Your task to perform on an android device: see creations saved in the google photos Image 0: 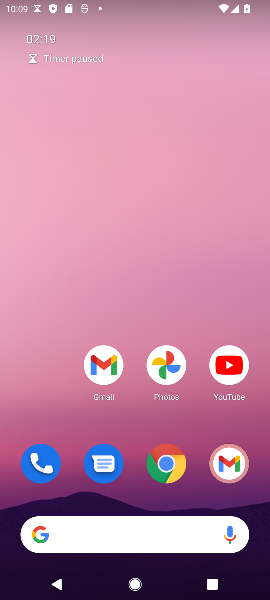
Step 0: click (160, 379)
Your task to perform on an android device: see creations saved in the google photos Image 1: 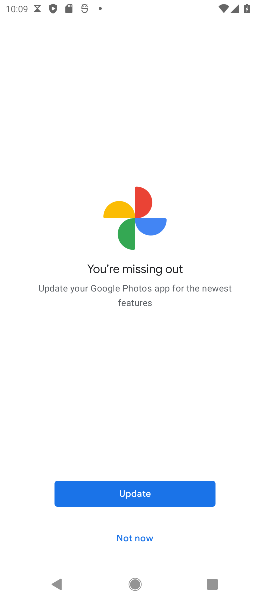
Step 1: click (134, 535)
Your task to perform on an android device: see creations saved in the google photos Image 2: 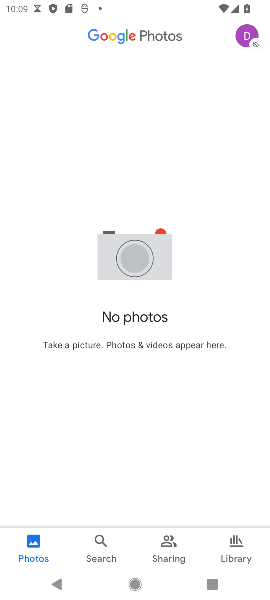
Step 2: click (238, 549)
Your task to perform on an android device: see creations saved in the google photos Image 3: 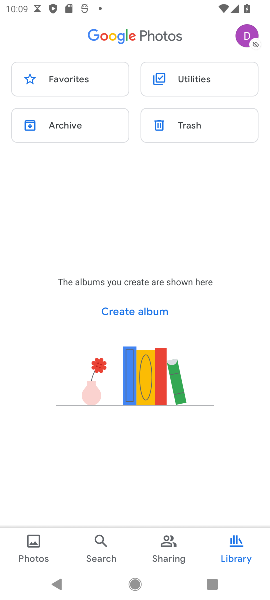
Step 3: task complete